Your task to perform on an android device: Go to Yahoo.com Image 0: 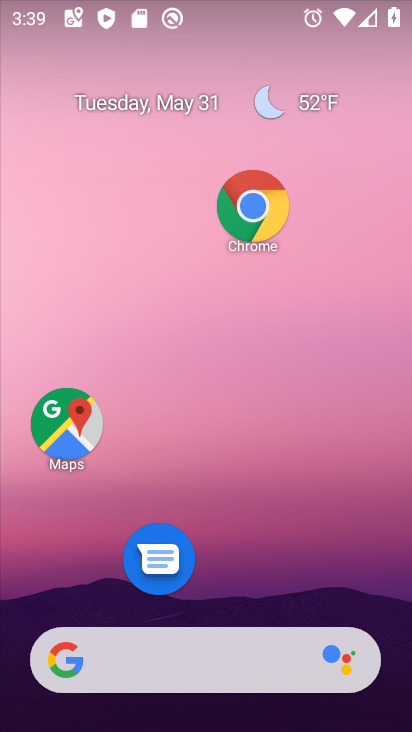
Step 0: click (237, 216)
Your task to perform on an android device: Go to Yahoo.com Image 1: 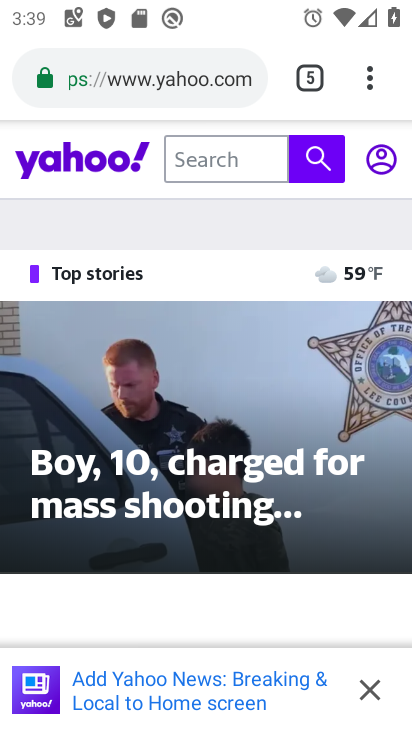
Step 1: task complete